Your task to perform on an android device: Clear the shopping cart on target.com. Add jbl charge 4 to the cart on target.com, then select checkout. Image 0: 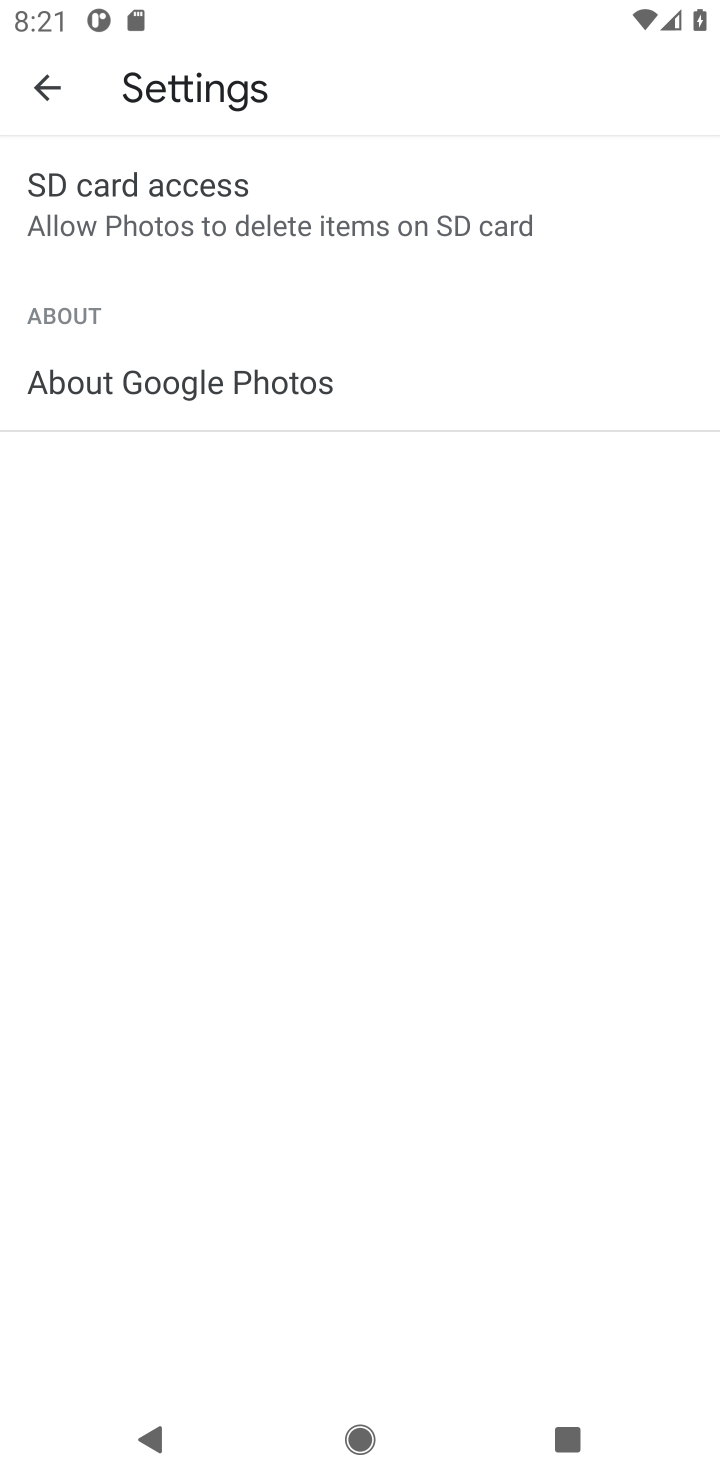
Step 0: press home button
Your task to perform on an android device: Clear the shopping cart on target.com. Add jbl charge 4 to the cart on target.com, then select checkout. Image 1: 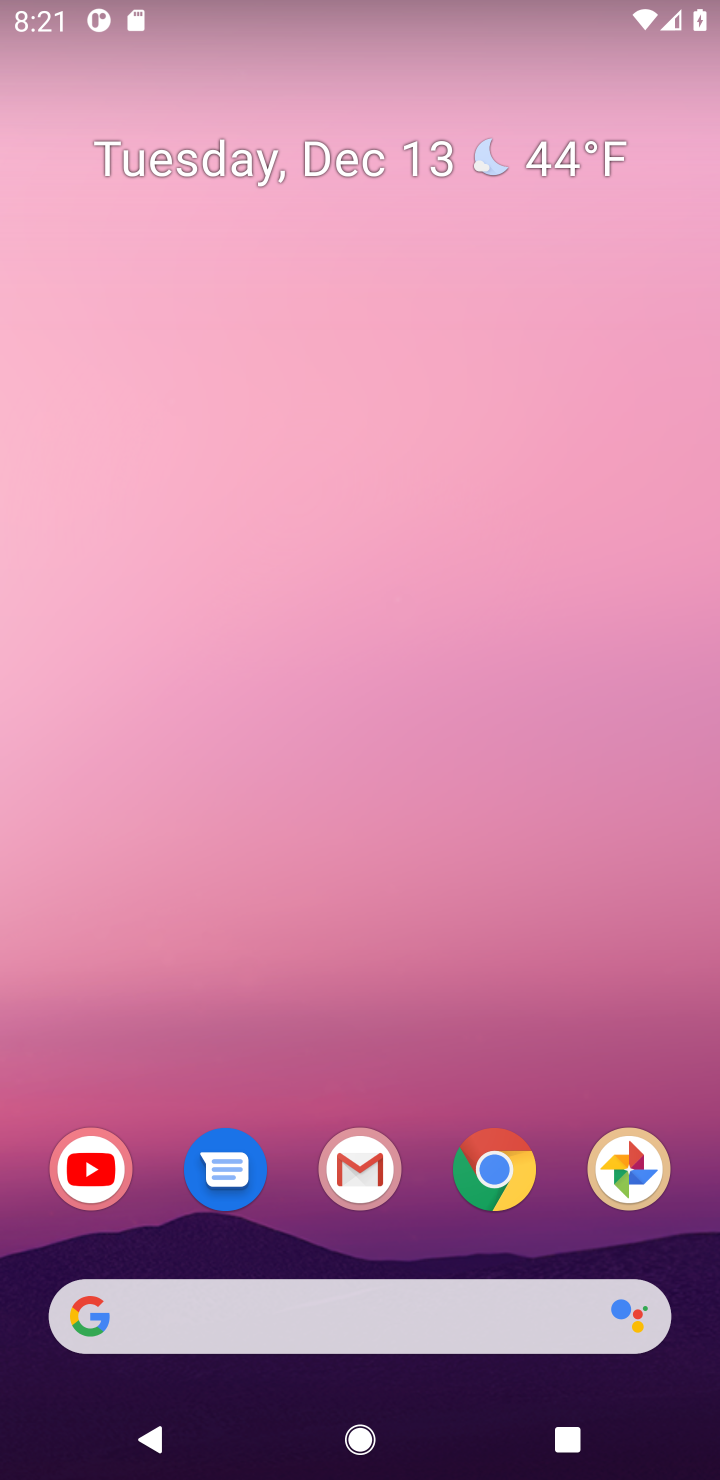
Step 1: click (458, 1159)
Your task to perform on an android device: Clear the shopping cart on target.com. Add jbl charge 4 to the cart on target.com, then select checkout. Image 2: 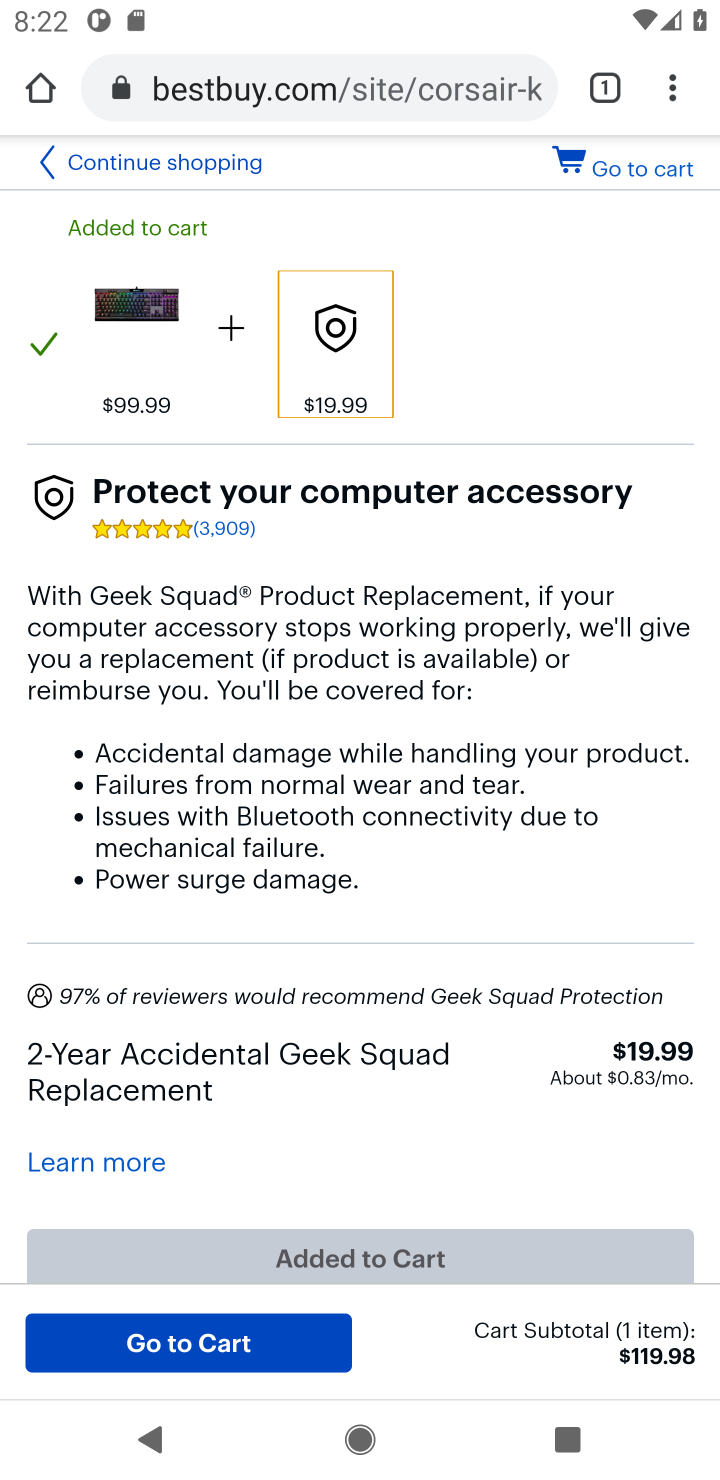
Step 2: click (281, 101)
Your task to perform on an android device: Clear the shopping cart on target.com. Add jbl charge 4 to the cart on target.com, then select checkout. Image 3: 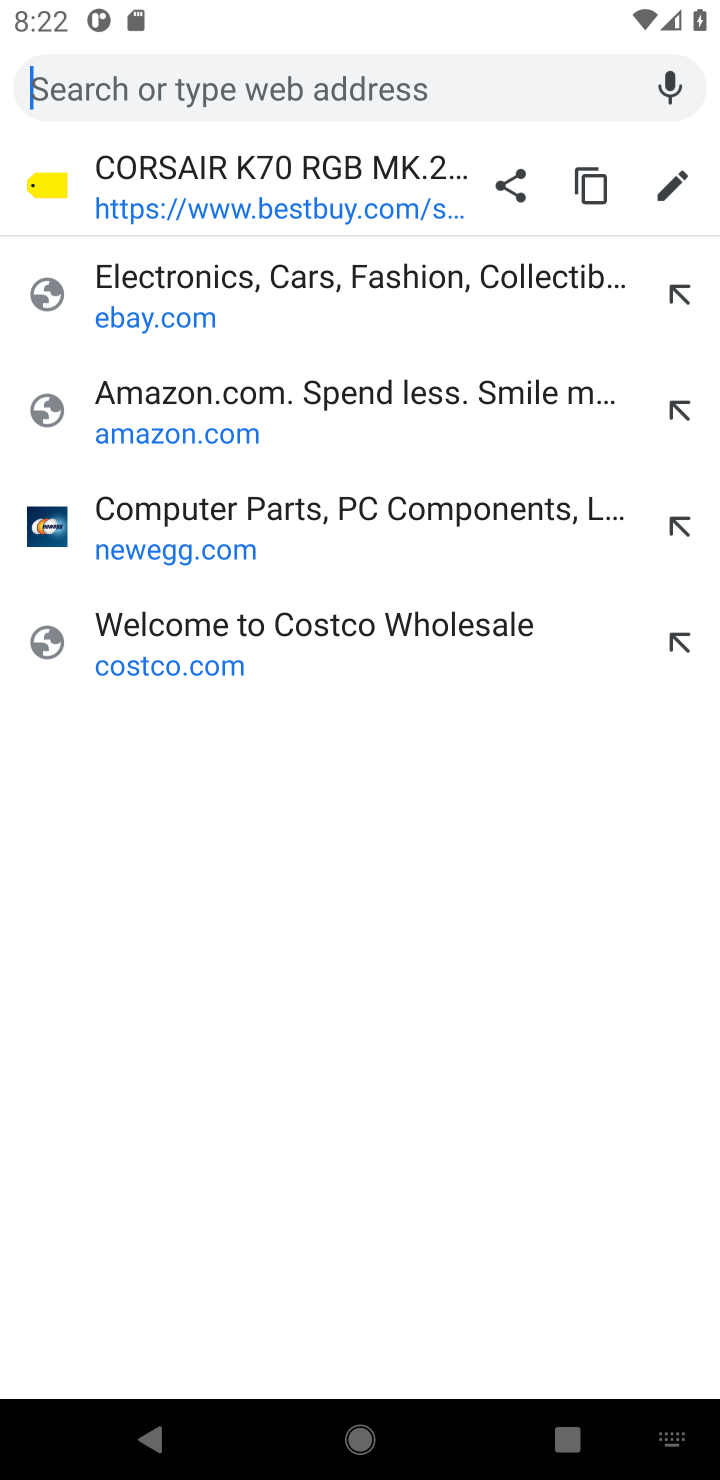
Step 3: type "target"
Your task to perform on an android device: Clear the shopping cart on target.com. Add jbl charge 4 to the cart on target.com, then select checkout. Image 4: 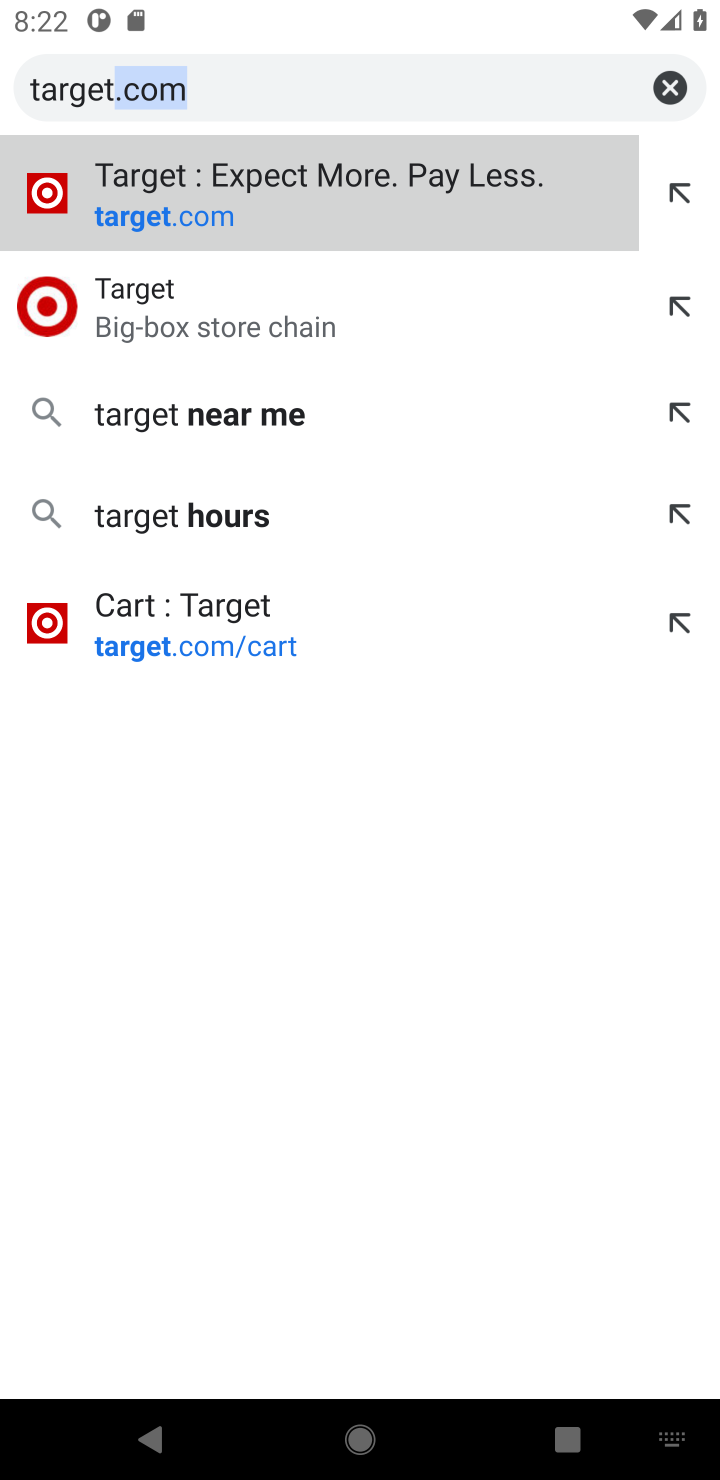
Step 4: click (310, 198)
Your task to perform on an android device: Clear the shopping cart on target.com. Add jbl charge 4 to the cart on target.com, then select checkout. Image 5: 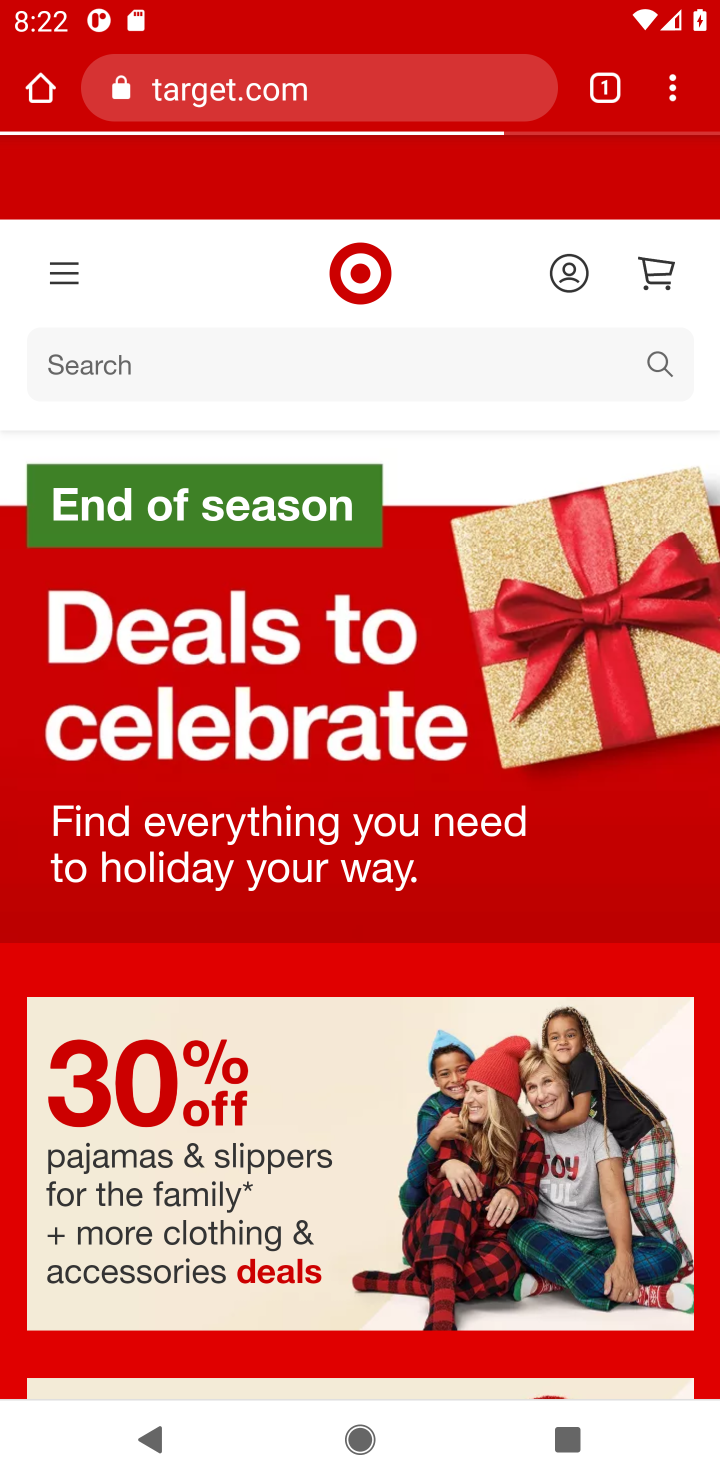
Step 5: click (171, 372)
Your task to perform on an android device: Clear the shopping cart on target.com. Add jbl charge 4 to the cart on target.com, then select checkout. Image 6: 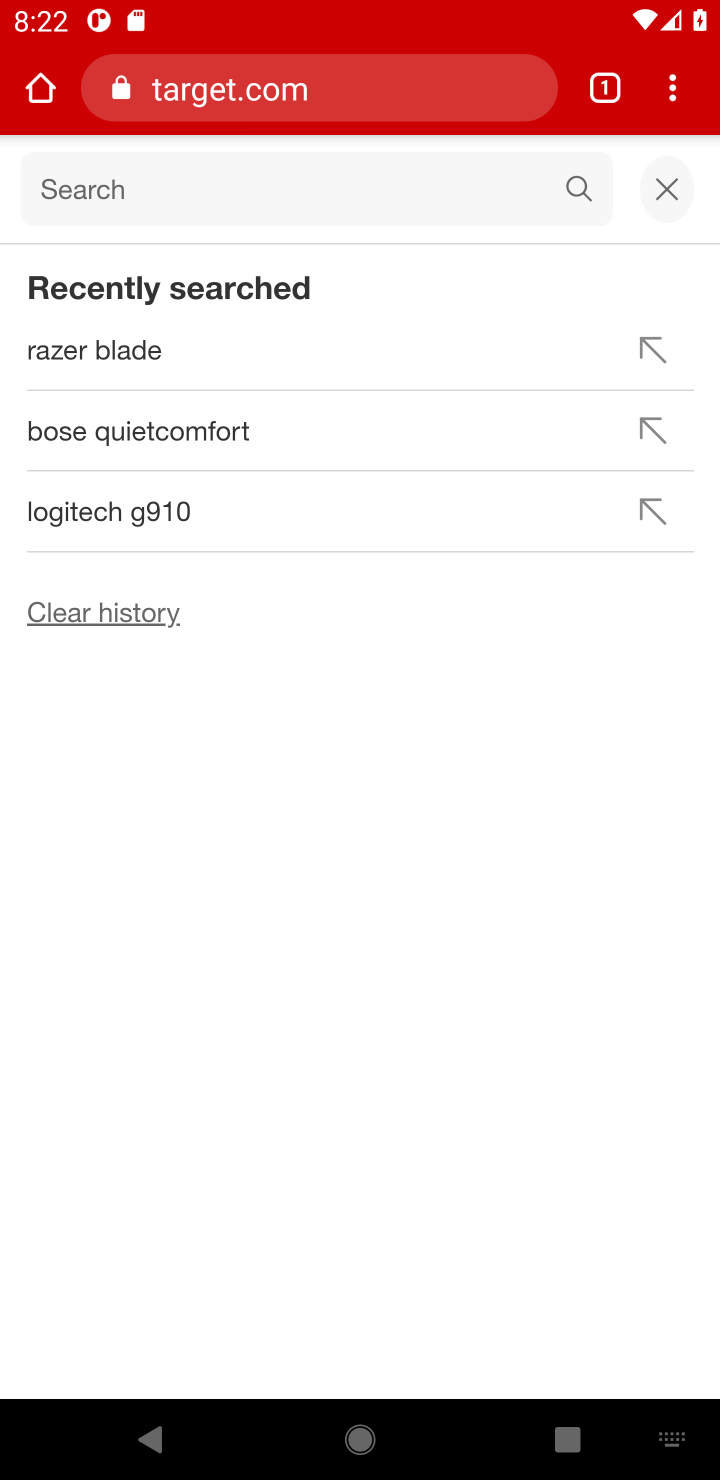
Step 6: type "jbl chare 4"
Your task to perform on an android device: Clear the shopping cart on target.com. Add jbl charge 4 to the cart on target.com, then select checkout. Image 7: 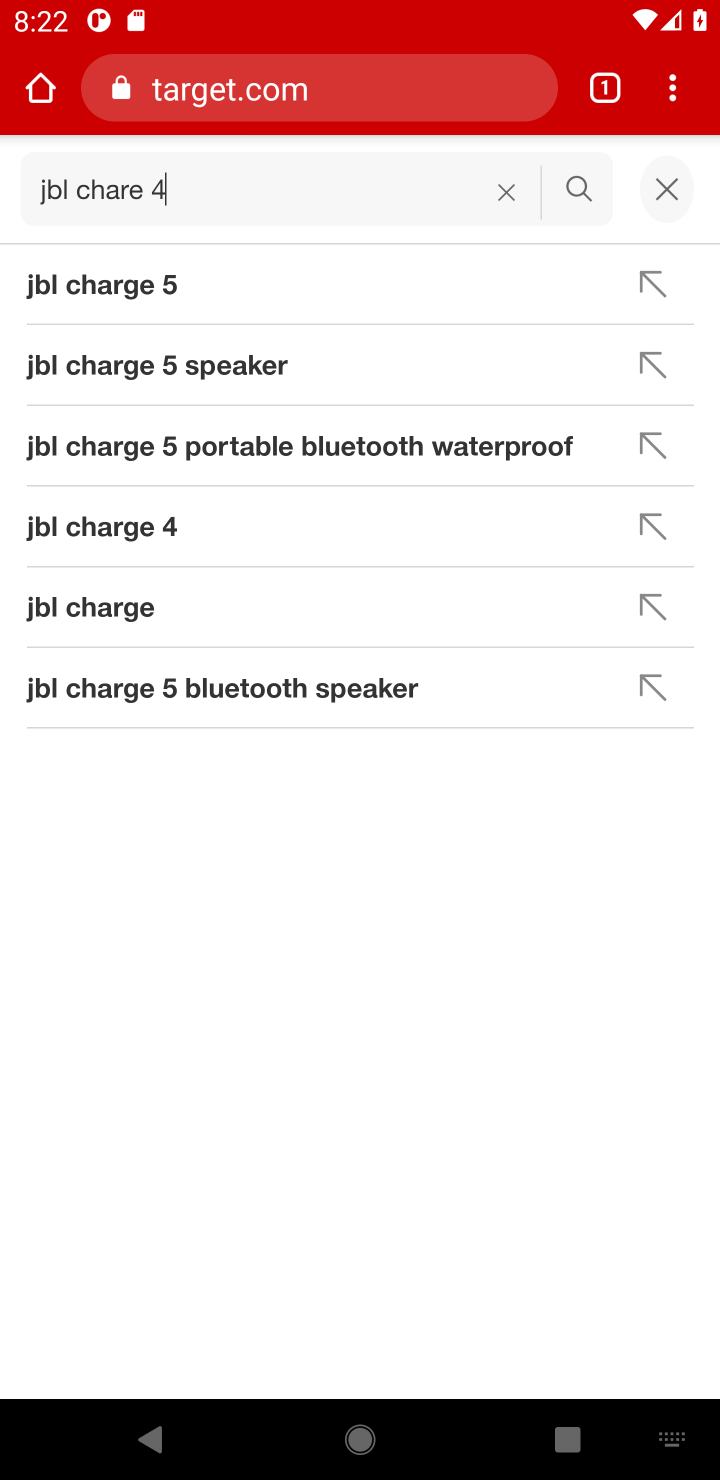
Step 7: click (582, 193)
Your task to perform on an android device: Clear the shopping cart on target.com. Add jbl charge 4 to the cart on target.com, then select checkout. Image 8: 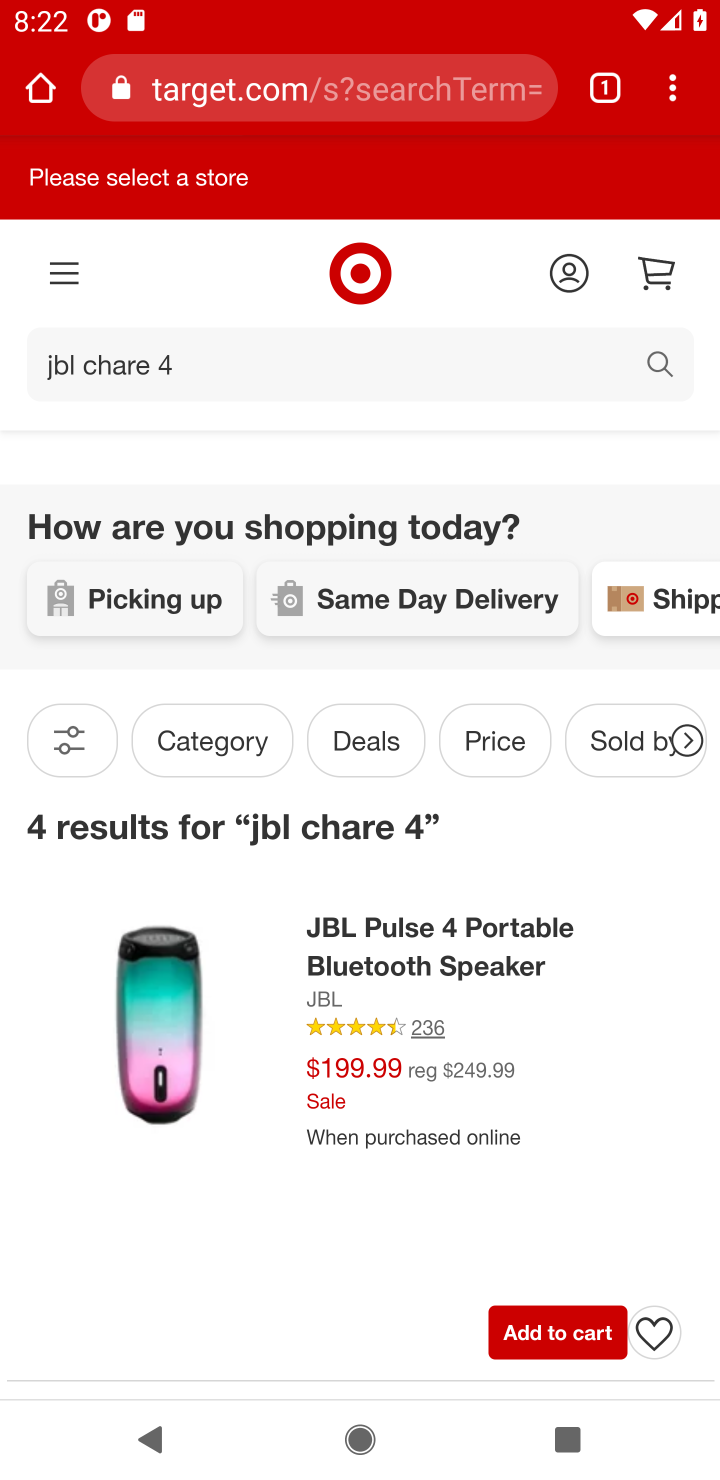
Step 8: click (511, 1313)
Your task to perform on an android device: Clear the shopping cart on target.com. Add jbl charge 4 to the cart on target.com, then select checkout. Image 9: 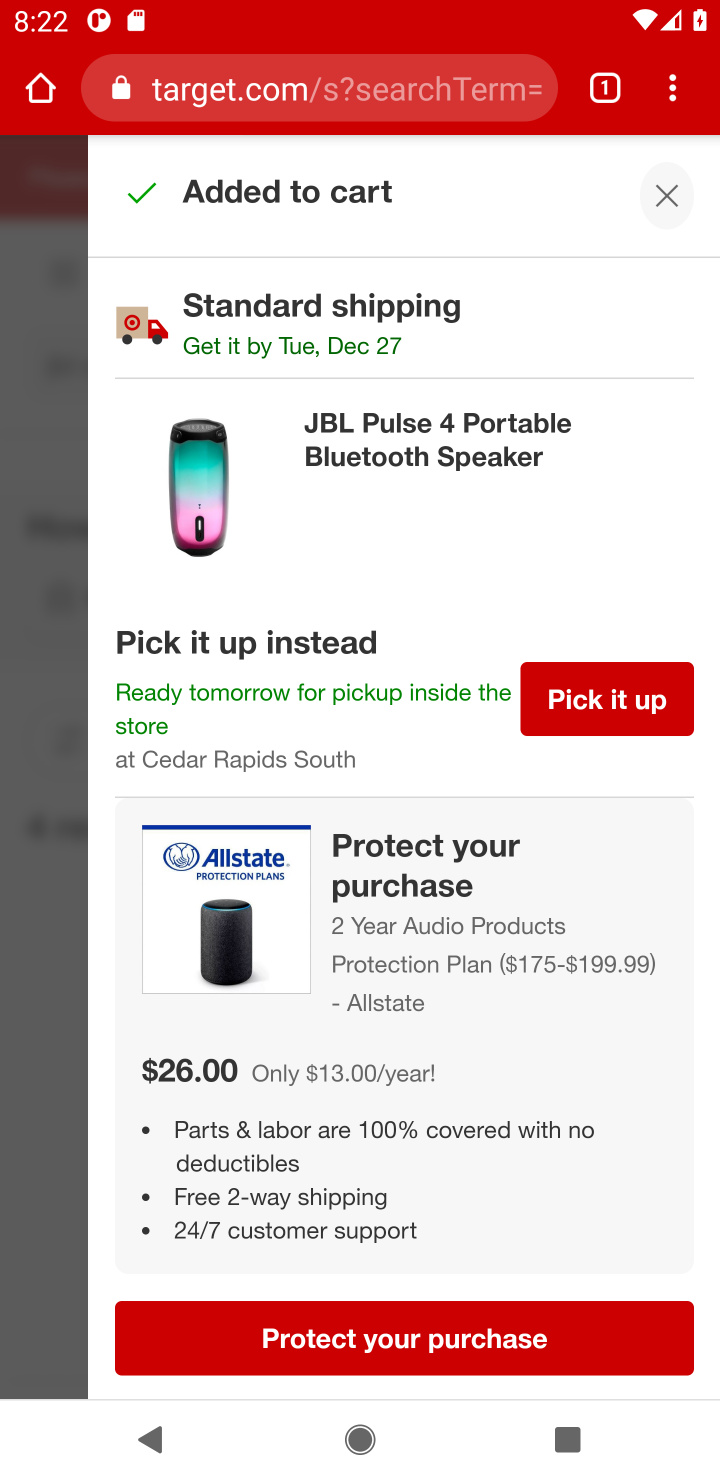
Step 9: task complete